Your task to perform on an android device: Open calendar and show me the fourth week of next month Image 0: 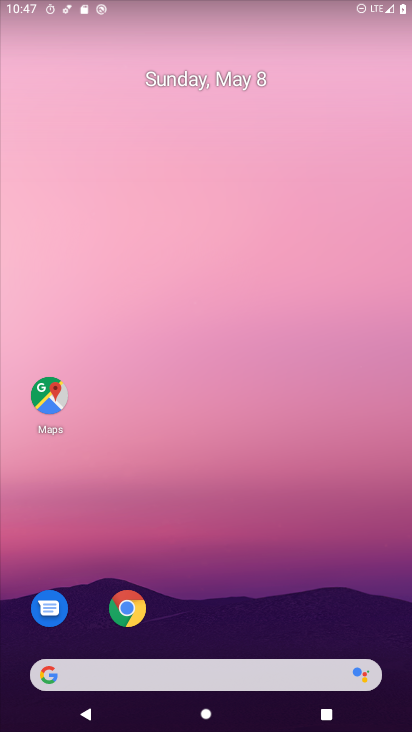
Step 0: drag from (231, 636) to (258, 206)
Your task to perform on an android device: Open calendar and show me the fourth week of next month Image 1: 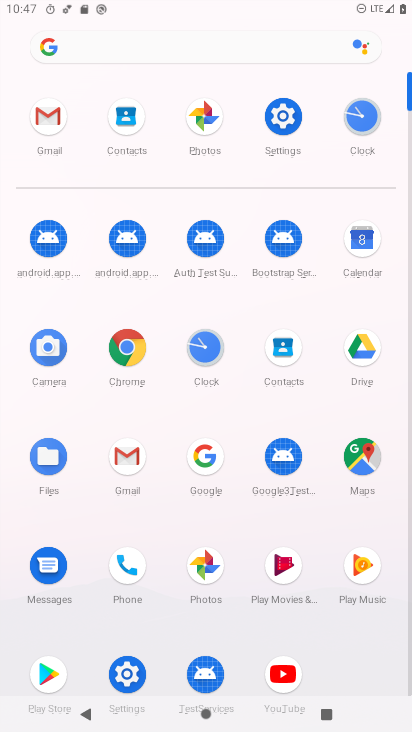
Step 1: click (355, 256)
Your task to perform on an android device: Open calendar and show me the fourth week of next month Image 2: 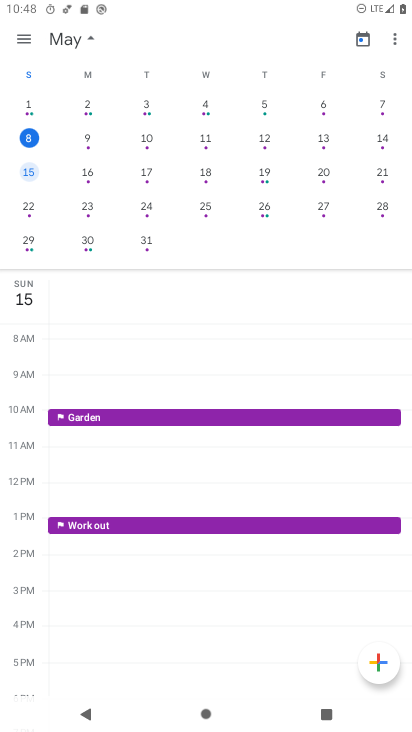
Step 2: drag from (393, 180) to (46, 171)
Your task to perform on an android device: Open calendar and show me the fourth week of next month Image 3: 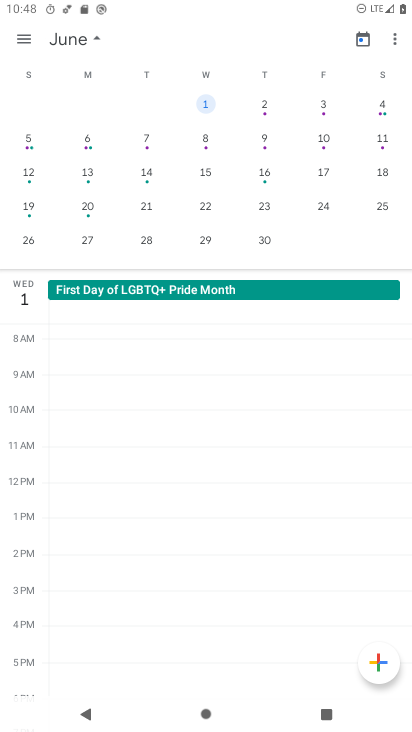
Step 3: click (206, 207)
Your task to perform on an android device: Open calendar and show me the fourth week of next month Image 4: 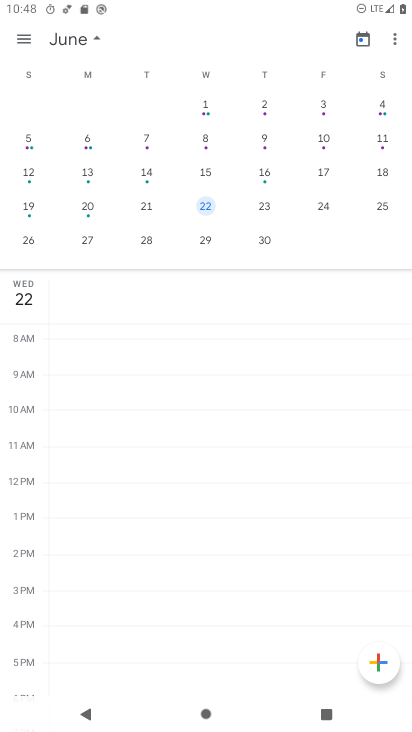
Step 4: click (19, 39)
Your task to perform on an android device: Open calendar and show me the fourth week of next month Image 5: 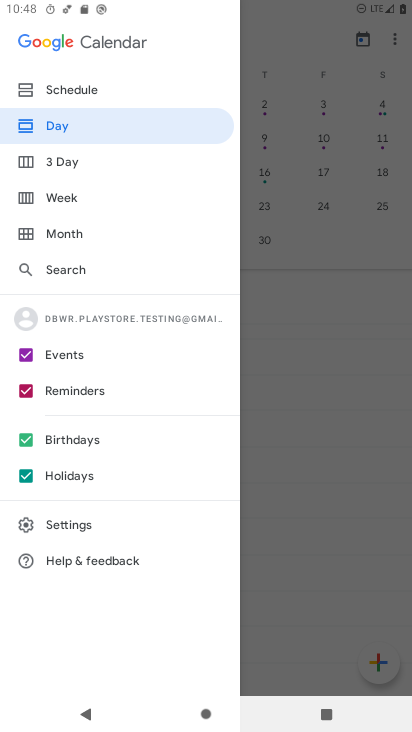
Step 5: click (74, 198)
Your task to perform on an android device: Open calendar and show me the fourth week of next month Image 6: 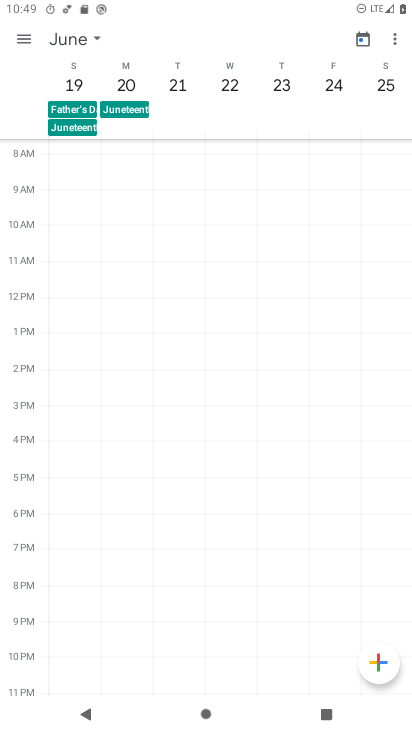
Step 6: task complete